Your task to perform on an android device: open app "NewsBreak: Local News & Alerts" (install if not already installed) and enter user name: "switch@outlook.com" and password: "fabrics" Image 0: 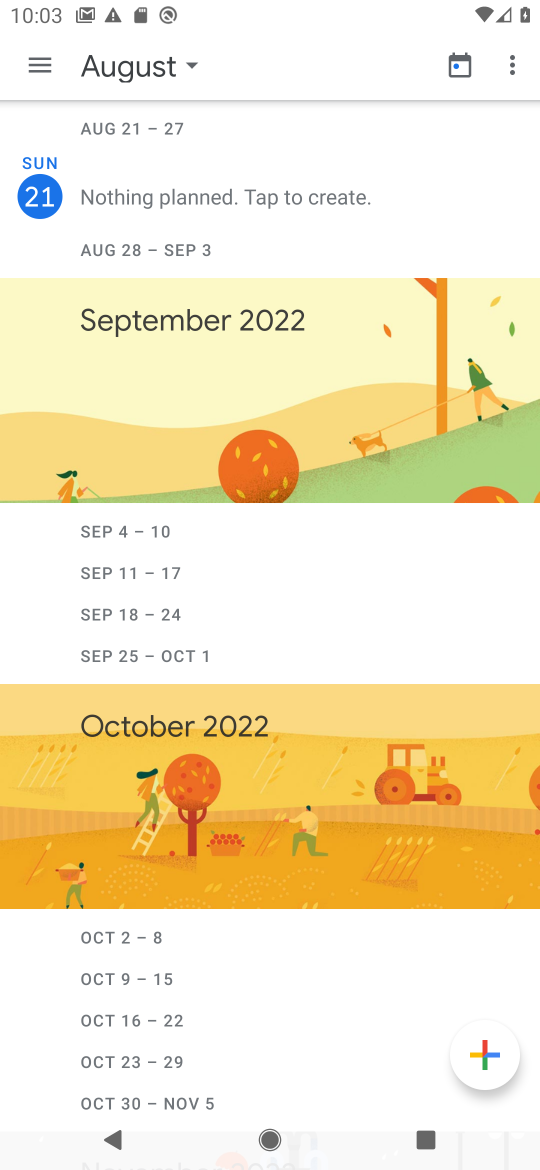
Step 0: press back button
Your task to perform on an android device: open app "NewsBreak: Local News & Alerts" (install if not already installed) and enter user name: "switch@outlook.com" and password: "fabrics" Image 1: 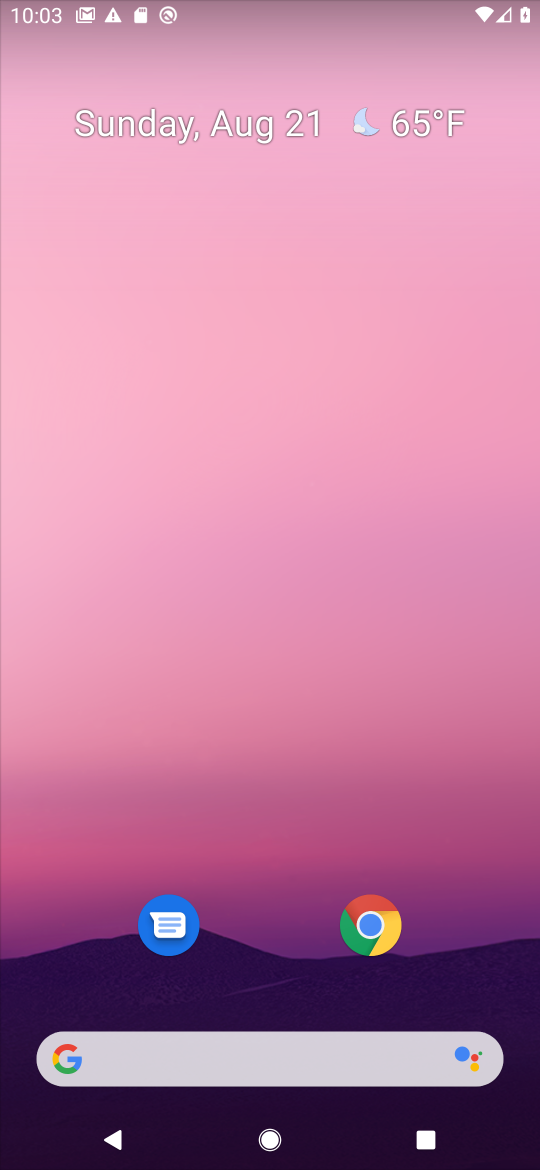
Step 1: drag from (263, 954) to (484, 6)
Your task to perform on an android device: open app "NewsBreak: Local News & Alerts" (install if not already installed) and enter user name: "switch@outlook.com" and password: "fabrics" Image 2: 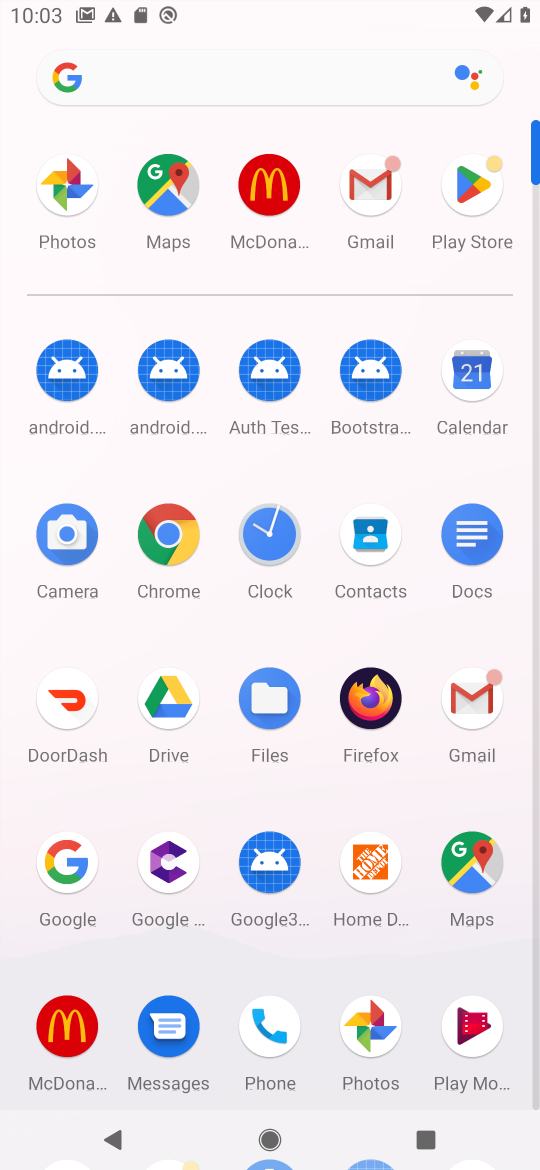
Step 2: click (472, 223)
Your task to perform on an android device: open app "NewsBreak: Local News & Alerts" (install if not already installed) and enter user name: "switch@outlook.com" and password: "fabrics" Image 3: 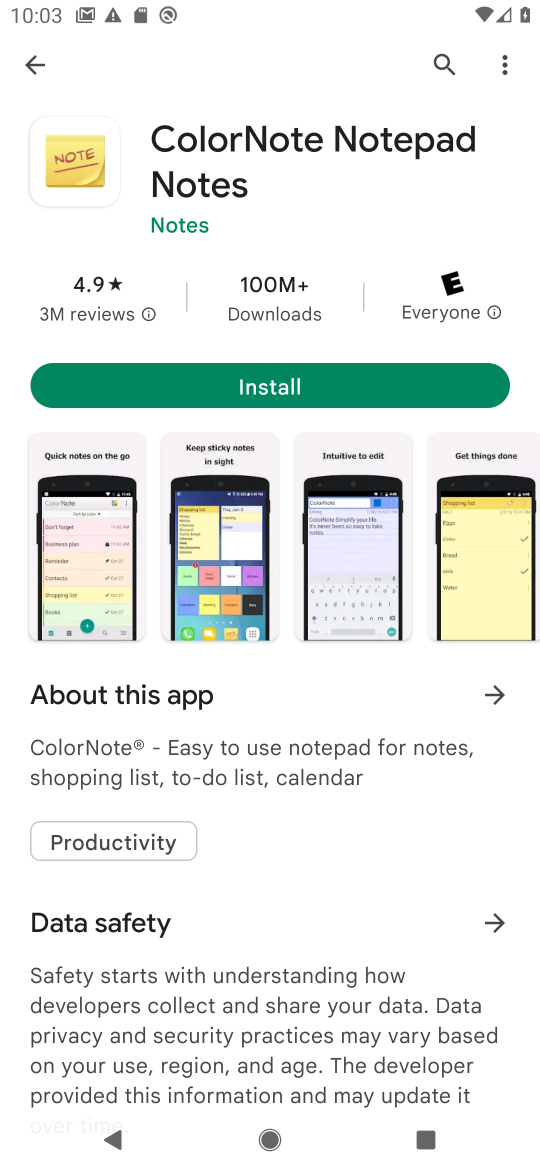
Step 3: click (445, 68)
Your task to perform on an android device: open app "NewsBreak: Local News & Alerts" (install if not already installed) and enter user name: "switch@outlook.com" and password: "fabrics" Image 4: 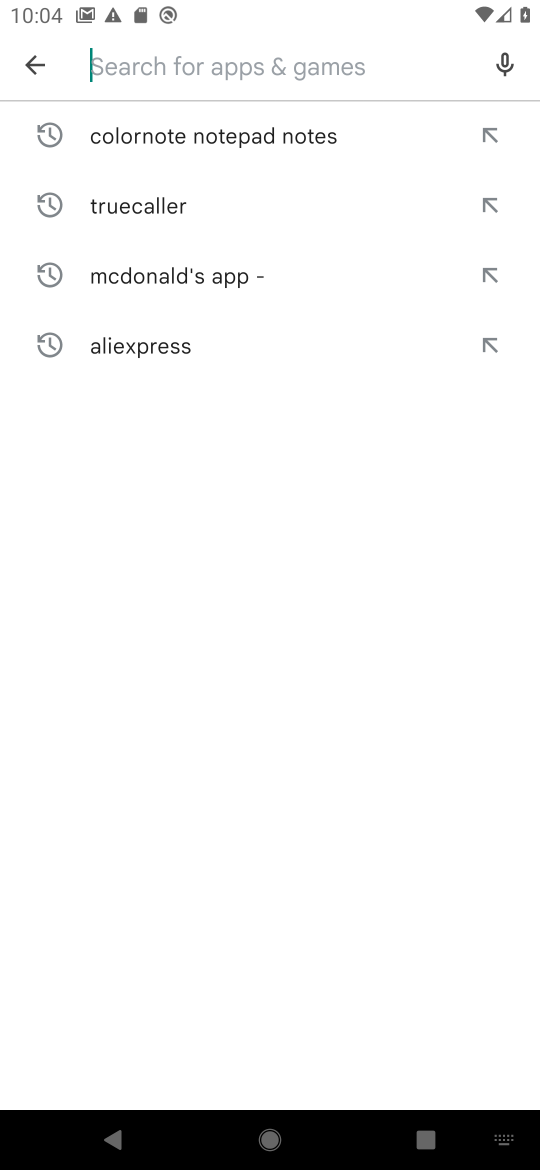
Step 4: type "newsbreak"
Your task to perform on an android device: open app "NewsBreak: Local News & Alerts" (install if not already installed) and enter user name: "switch@outlook.com" and password: "fabrics" Image 5: 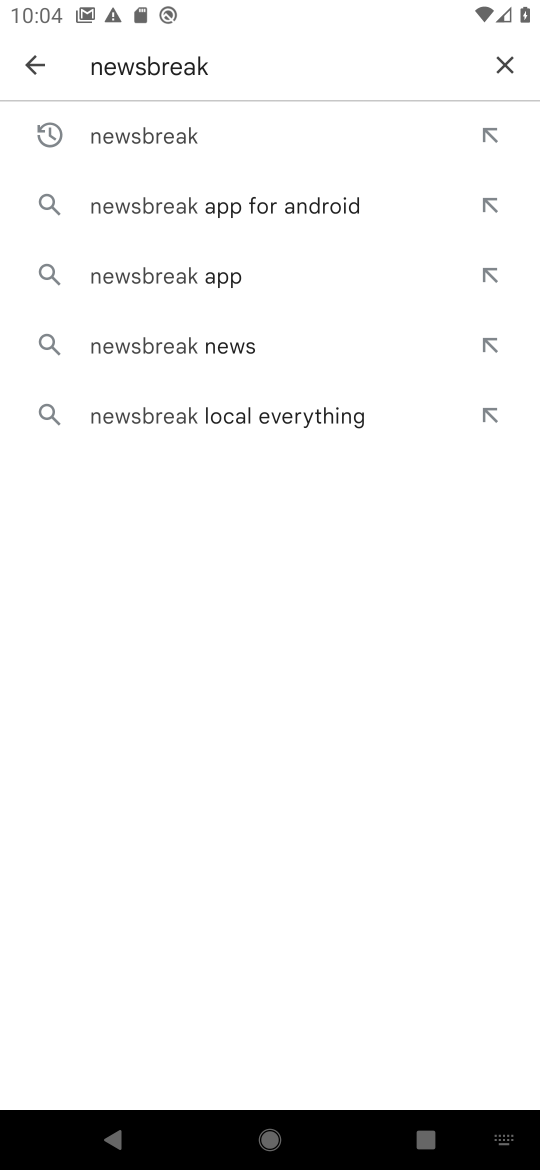
Step 5: click (217, 137)
Your task to perform on an android device: open app "NewsBreak: Local News & Alerts" (install if not already installed) and enter user name: "switch@outlook.com" and password: "fabrics" Image 6: 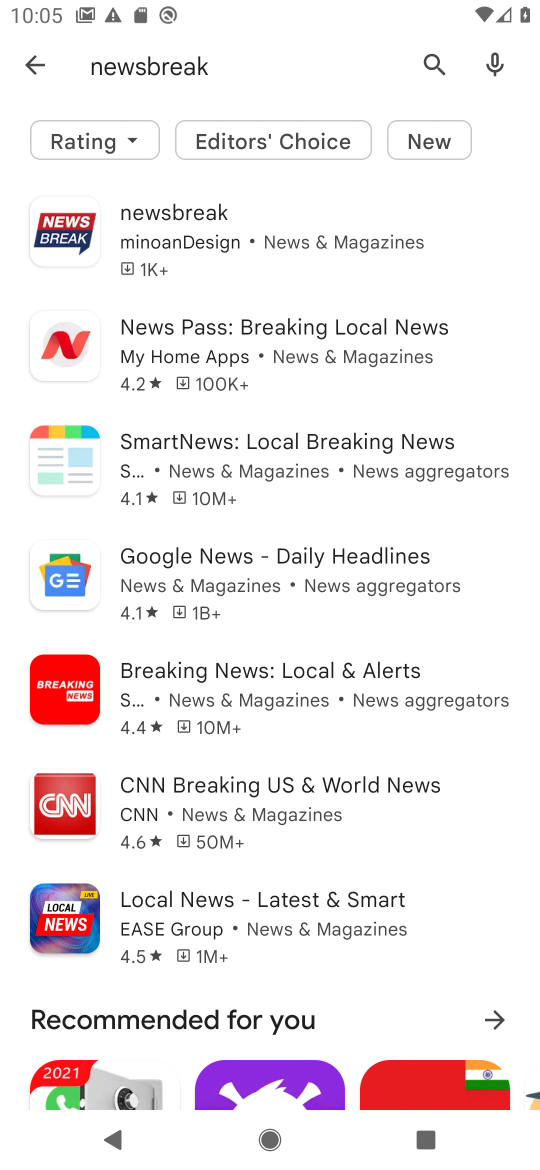
Step 6: click (265, 690)
Your task to perform on an android device: open app "NewsBreak: Local News & Alerts" (install if not already installed) and enter user name: "switch@outlook.com" and password: "fabrics" Image 7: 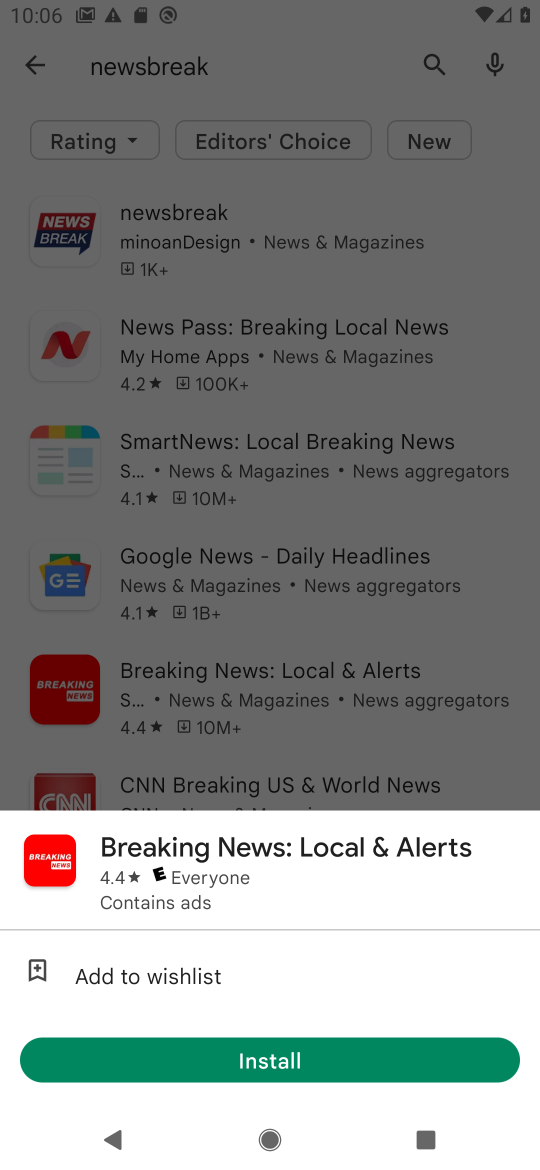
Step 7: click (299, 1055)
Your task to perform on an android device: open app "NewsBreak: Local News & Alerts" (install if not already installed) and enter user name: "switch@outlook.com" and password: "fabrics" Image 8: 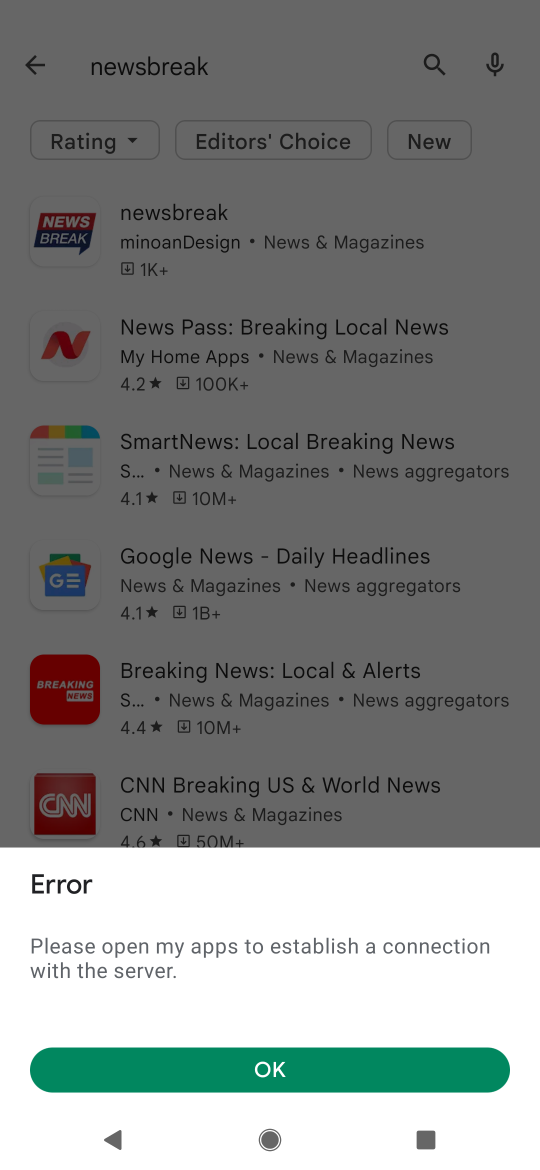
Step 8: click (297, 1075)
Your task to perform on an android device: open app "NewsBreak: Local News & Alerts" (install if not already installed) and enter user name: "switch@outlook.com" and password: "fabrics" Image 9: 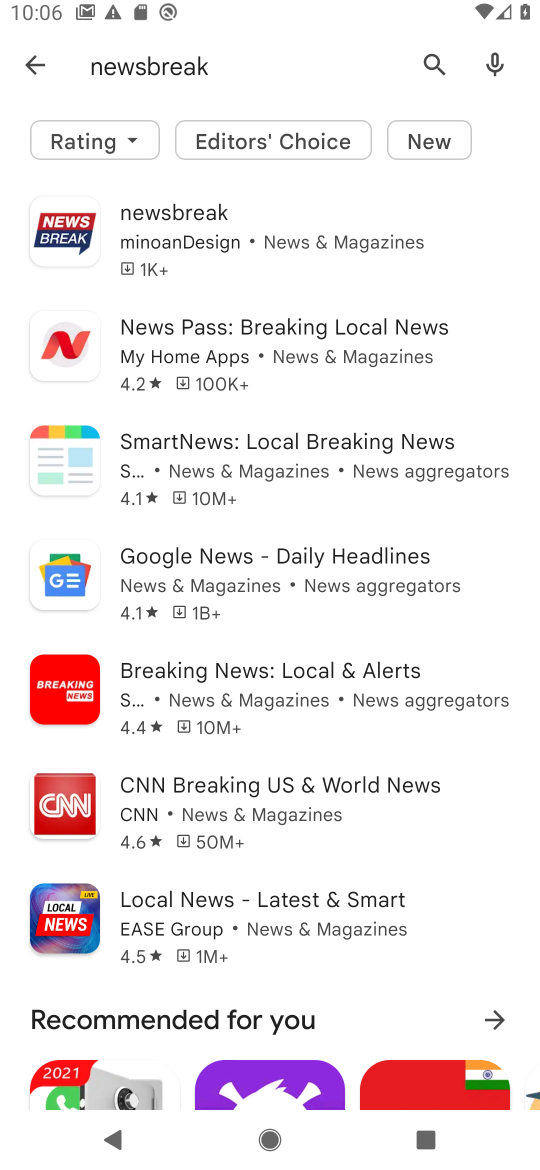
Step 9: task complete